Your task to perform on an android device: star an email in the gmail app Image 0: 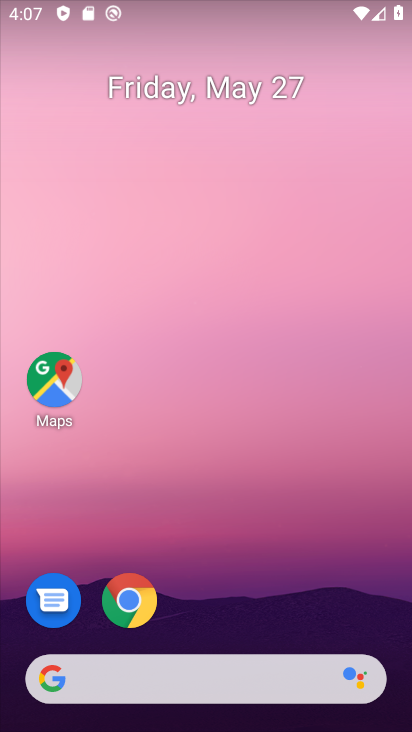
Step 0: drag from (263, 711) to (351, 134)
Your task to perform on an android device: star an email in the gmail app Image 1: 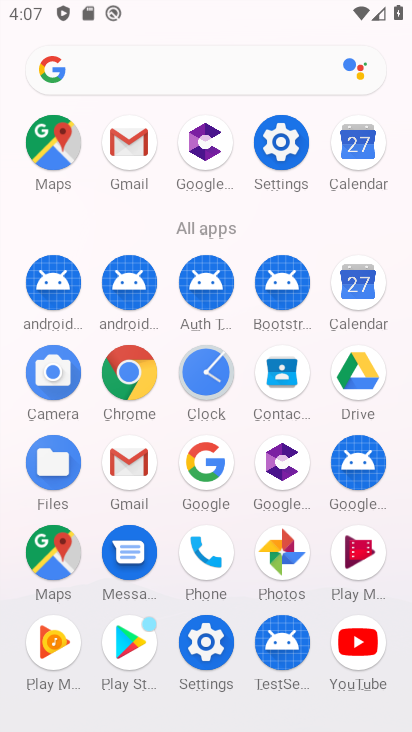
Step 1: click (136, 451)
Your task to perform on an android device: star an email in the gmail app Image 2: 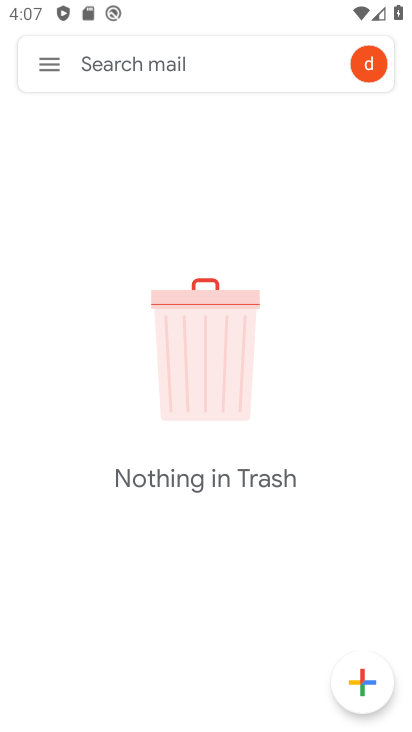
Step 2: click (45, 58)
Your task to perform on an android device: star an email in the gmail app Image 3: 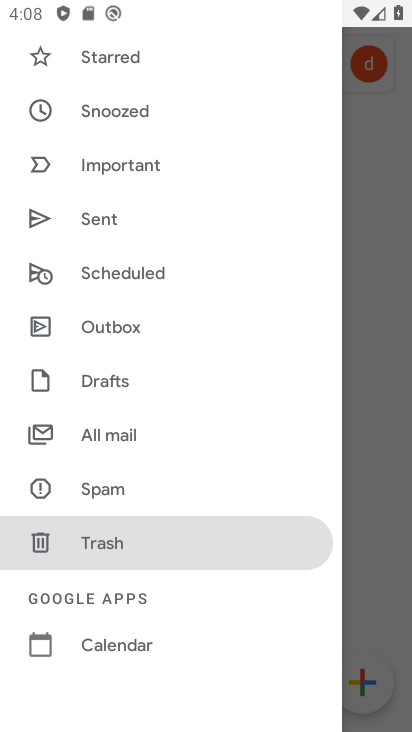
Step 3: click (115, 58)
Your task to perform on an android device: star an email in the gmail app Image 4: 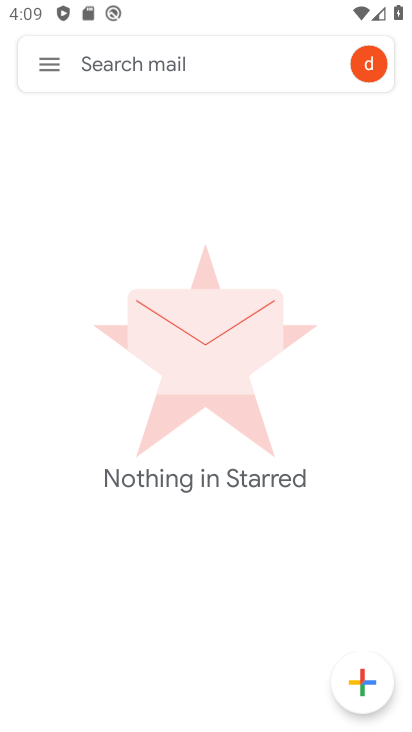
Step 4: task complete